Your task to perform on an android device: Open Google Chrome and open the bookmarks view Image 0: 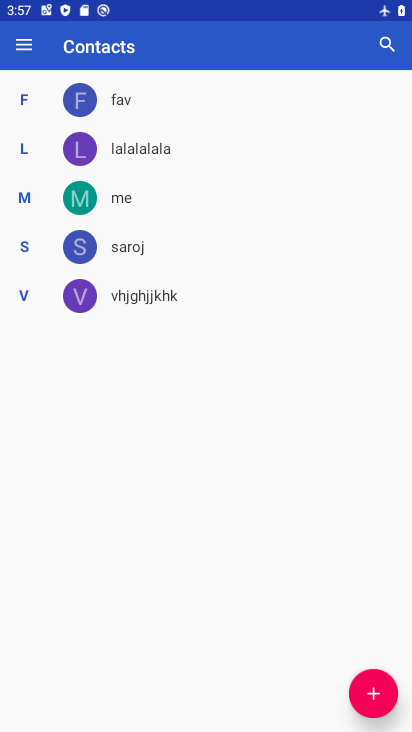
Step 0: press home button
Your task to perform on an android device: Open Google Chrome and open the bookmarks view Image 1: 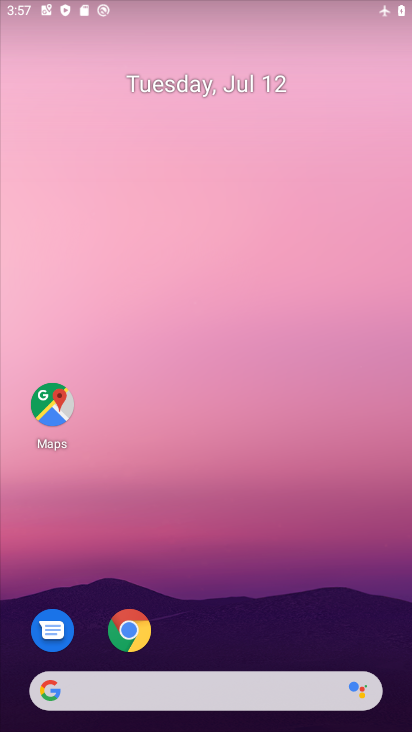
Step 1: drag from (303, 672) to (343, 6)
Your task to perform on an android device: Open Google Chrome and open the bookmarks view Image 2: 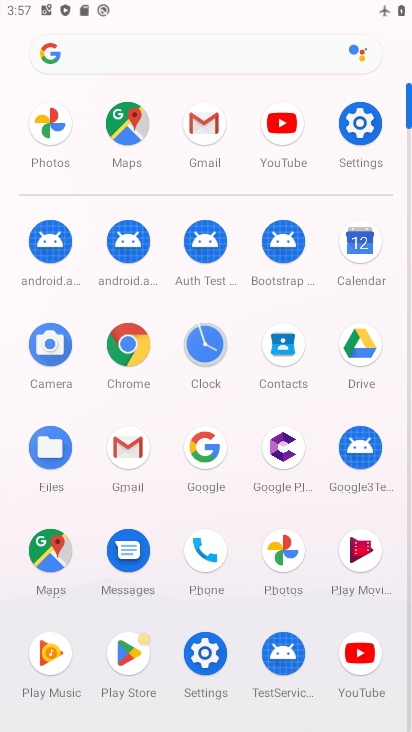
Step 2: click (122, 343)
Your task to perform on an android device: Open Google Chrome and open the bookmarks view Image 3: 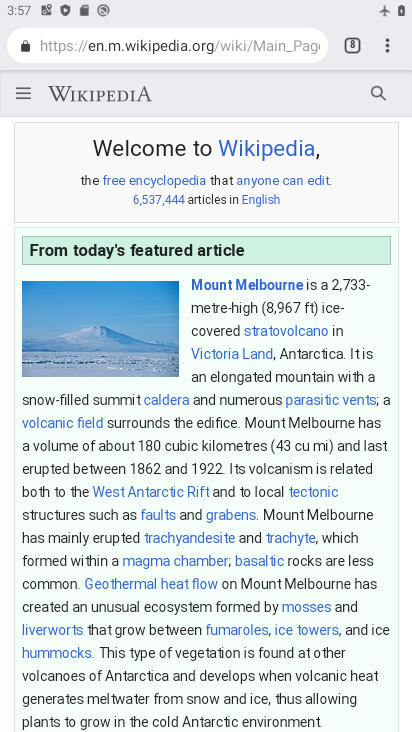
Step 3: task complete